Your task to perform on an android device: show emergency info Image 0: 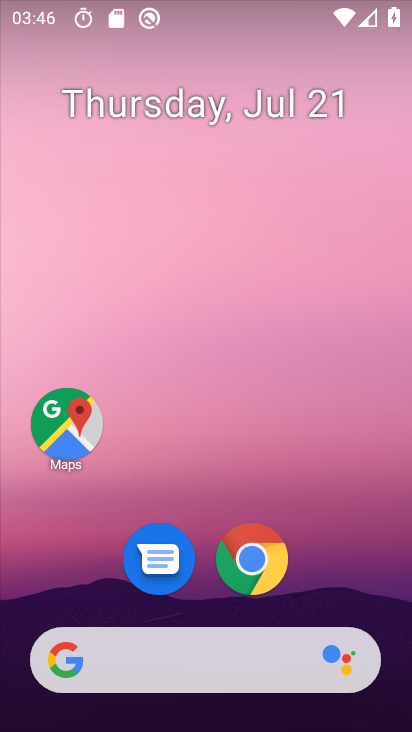
Step 0: drag from (349, 590) to (361, 92)
Your task to perform on an android device: show emergency info Image 1: 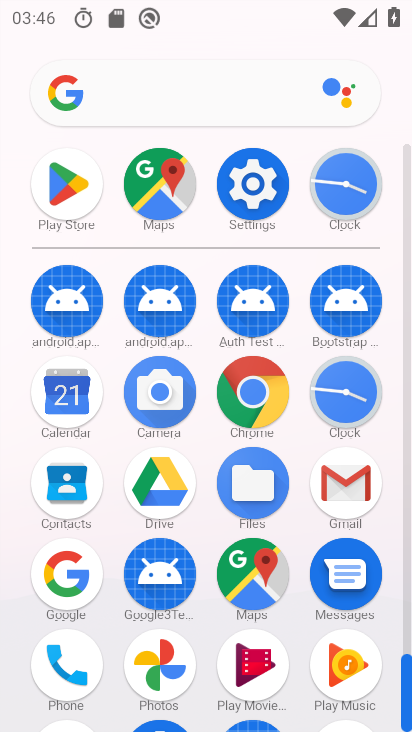
Step 1: click (260, 192)
Your task to perform on an android device: show emergency info Image 2: 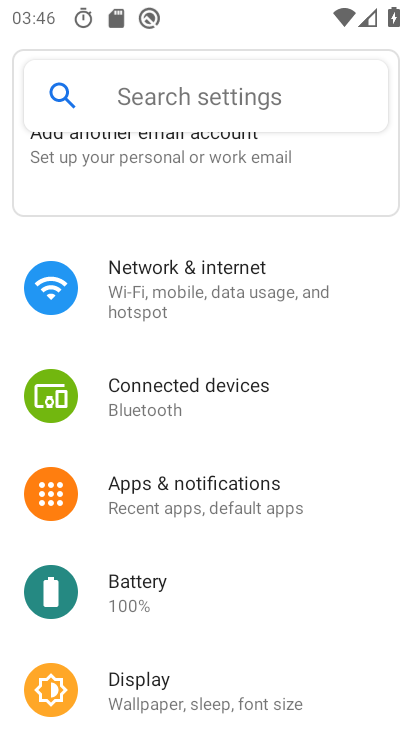
Step 2: drag from (333, 398) to (333, 309)
Your task to perform on an android device: show emergency info Image 3: 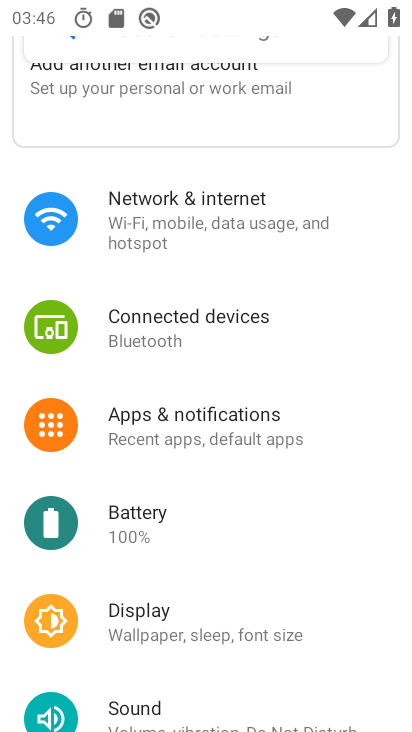
Step 3: drag from (348, 374) to (348, 290)
Your task to perform on an android device: show emergency info Image 4: 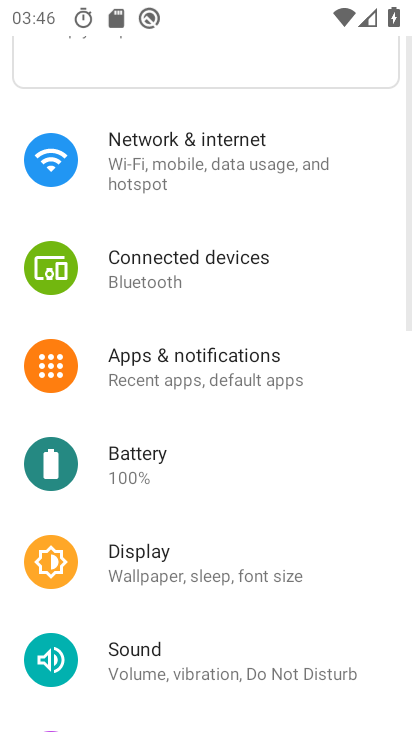
Step 4: drag from (355, 368) to (347, 290)
Your task to perform on an android device: show emergency info Image 5: 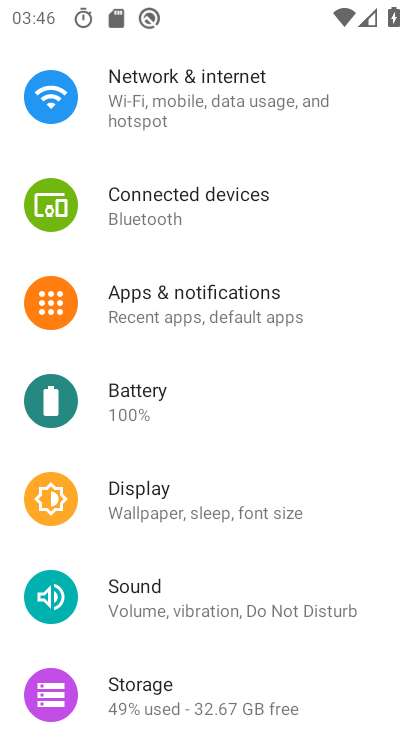
Step 5: drag from (347, 392) to (341, 318)
Your task to perform on an android device: show emergency info Image 6: 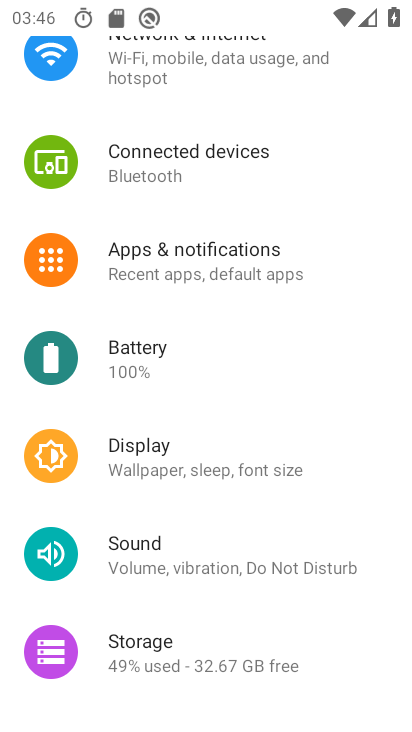
Step 6: drag from (363, 426) to (352, 328)
Your task to perform on an android device: show emergency info Image 7: 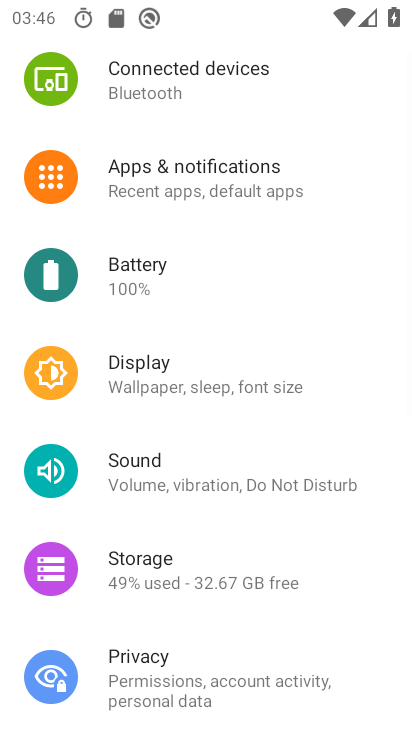
Step 7: drag from (348, 429) to (344, 338)
Your task to perform on an android device: show emergency info Image 8: 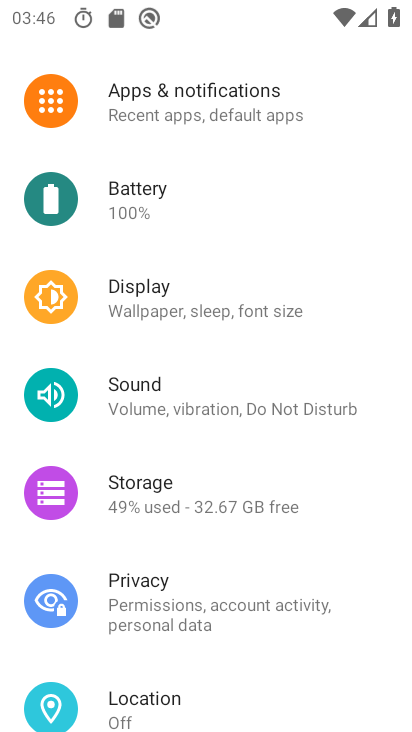
Step 8: drag from (349, 465) to (349, 384)
Your task to perform on an android device: show emergency info Image 9: 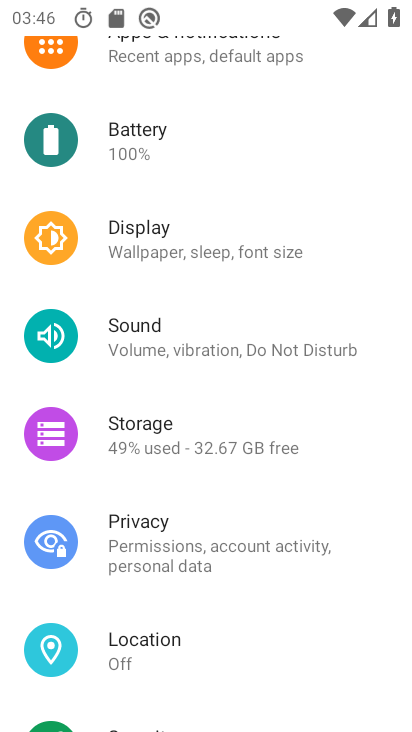
Step 9: drag from (351, 477) to (347, 384)
Your task to perform on an android device: show emergency info Image 10: 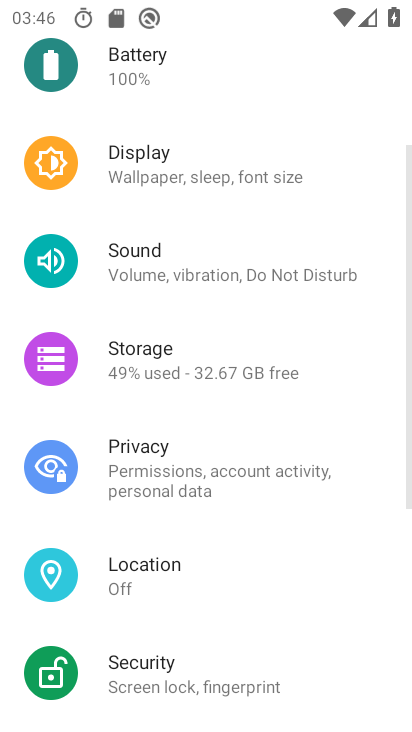
Step 10: drag from (360, 517) to (353, 348)
Your task to perform on an android device: show emergency info Image 11: 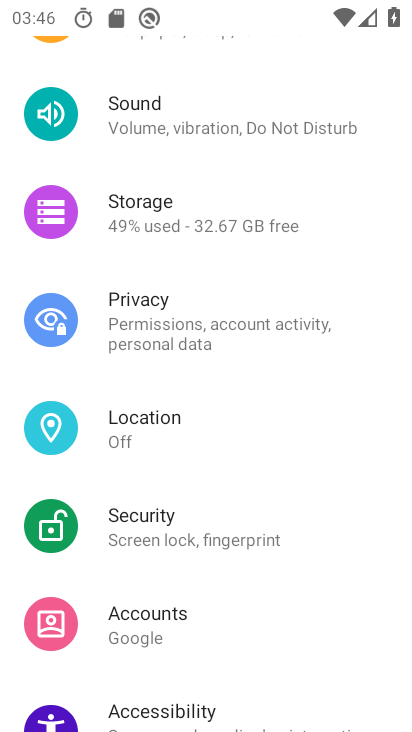
Step 11: drag from (332, 466) to (336, 382)
Your task to perform on an android device: show emergency info Image 12: 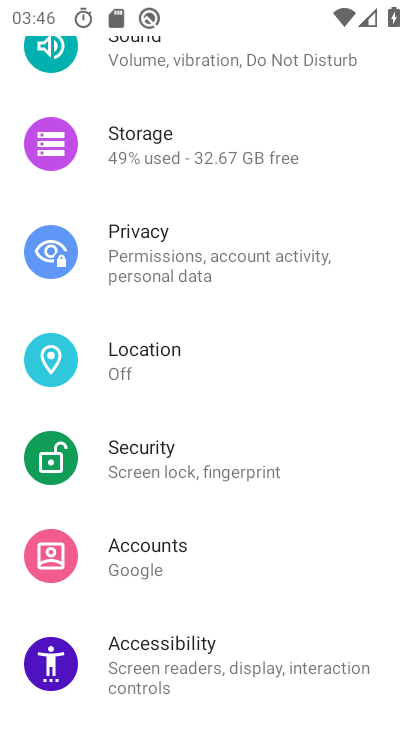
Step 12: drag from (325, 495) to (328, 397)
Your task to perform on an android device: show emergency info Image 13: 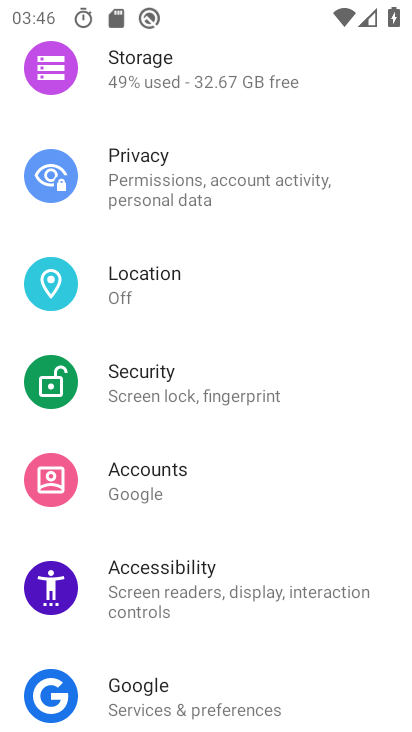
Step 13: drag from (327, 547) to (320, 406)
Your task to perform on an android device: show emergency info Image 14: 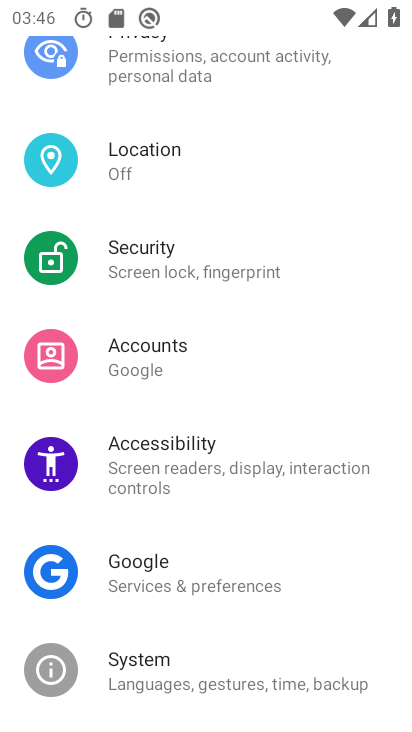
Step 14: drag from (316, 566) to (311, 453)
Your task to perform on an android device: show emergency info Image 15: 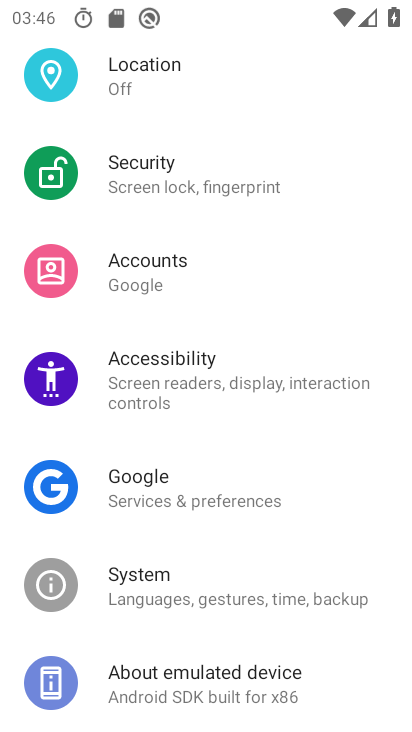
Step 15: click (343, 680)
Your task to perform on an android device: show emergency info Image 16: 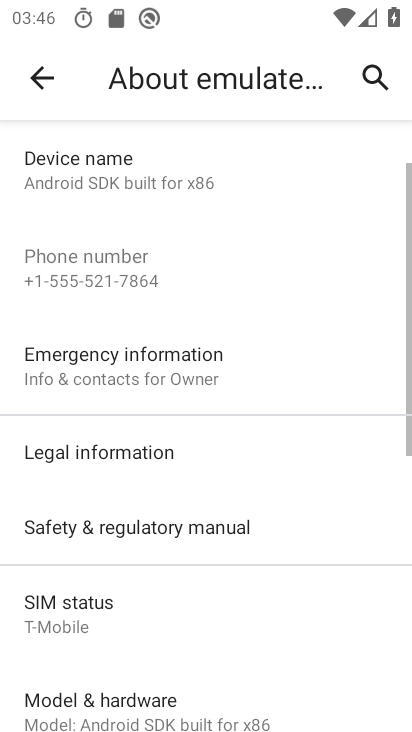
Step 16: click (295, 382)
Your task to perform on an android device: show emergency info Image 17: 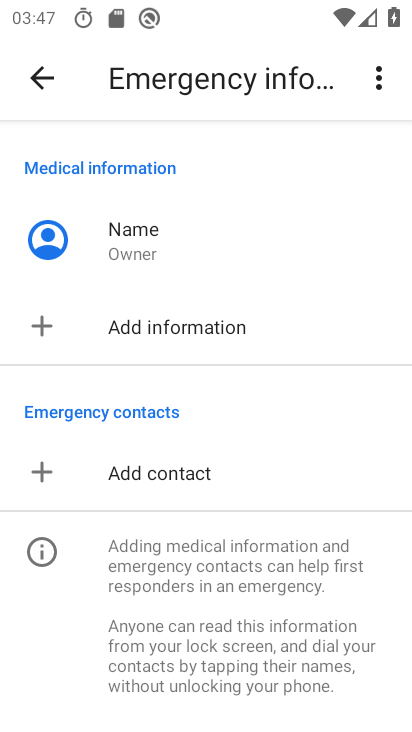
Step 17: task complete